Your task to perform on an android device: open device folders in google photos Image 0: 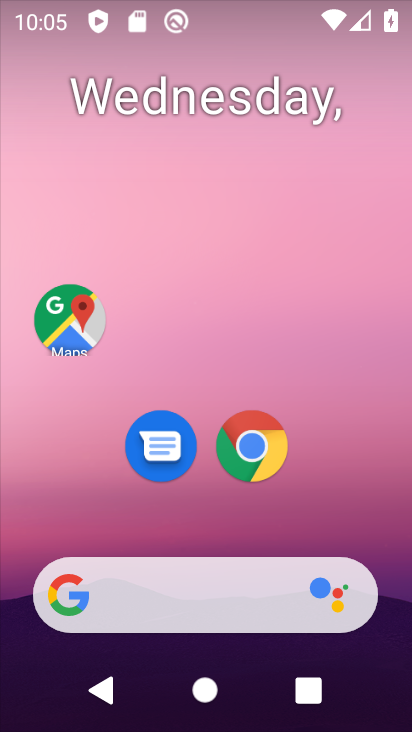
Step 0: drag from (339, 538) to (321, 57)
Your task to perform on an android device: open device folders in google photos Image 1: 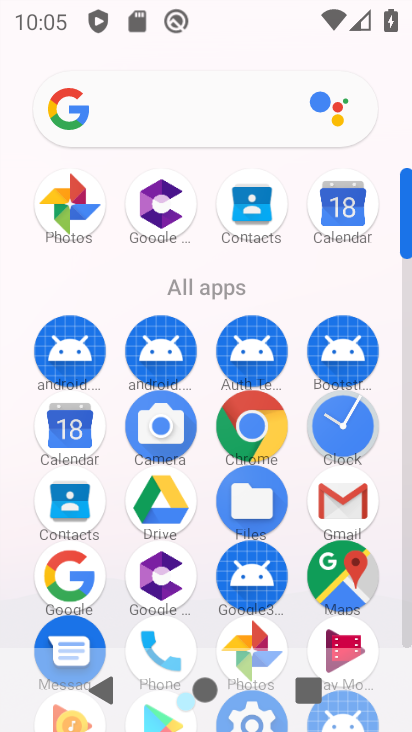
Step 1: click (76, 220)
Your task to perform on an android device: open device folders in google photos Image 2: 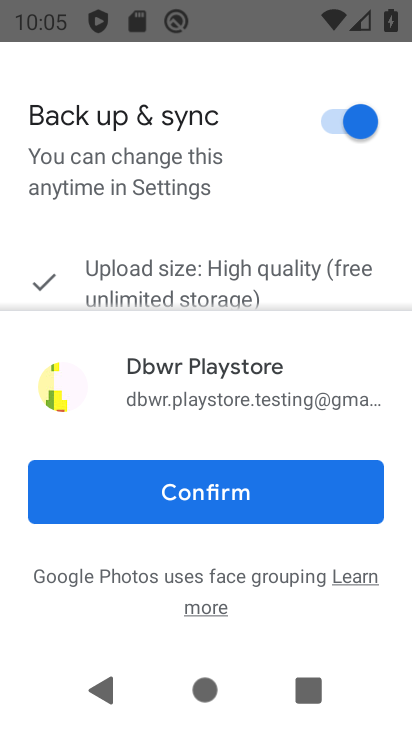
Step 2: click (68, 98)
Your task to perform on an android device: open device folders in google photos Image 3: 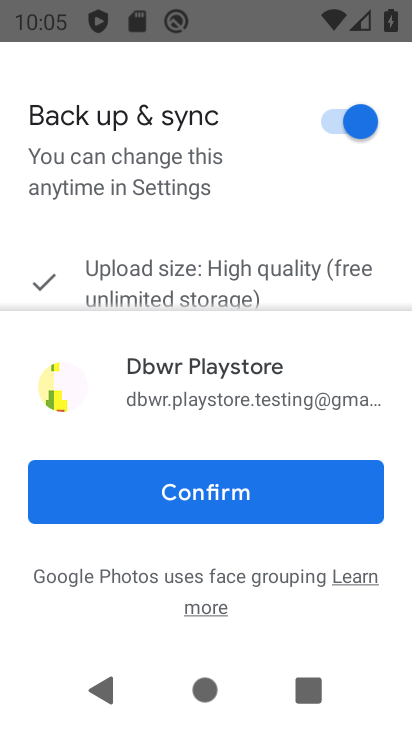
Step 3: click (246, 481)
Your task to perform on an android device: open device folders in google photos Image 4: 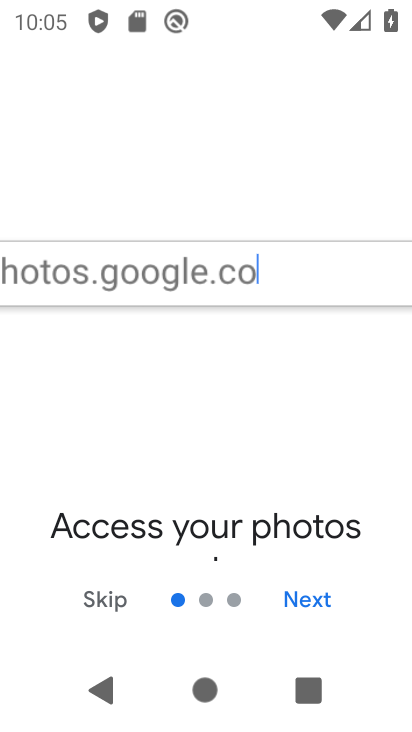
Step 4: click (114, 599)
Your task to perform on an android device: open device folders in google photos Image 5: 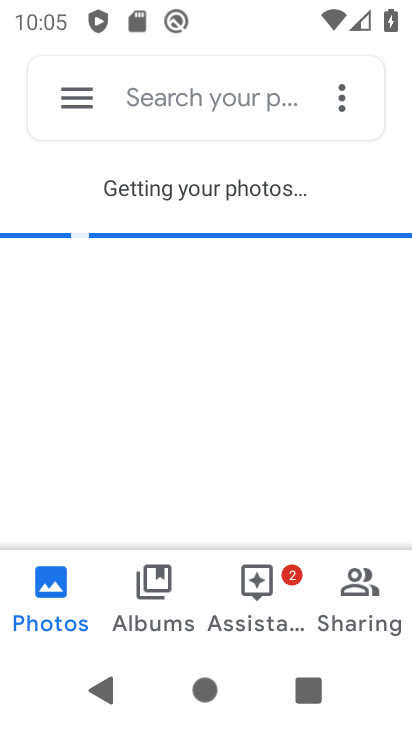
Step 5: click (78, 94)
Your task to perform on an android device: open device folders in google photos Image 6: 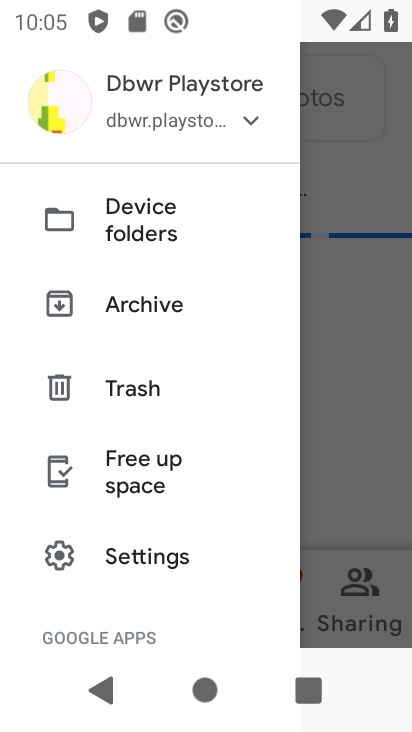
Step 6: click (145, 226)
Your task to perform on an android device: open device folders in google photos Image 7: 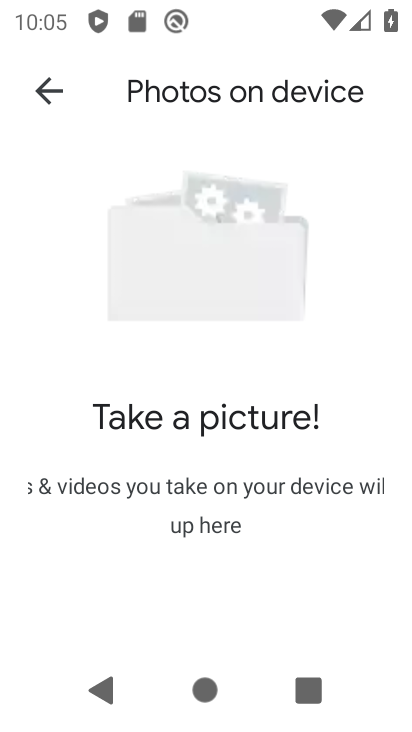
Step 7: task complete